Your task to perform on an android device: What's on my calendar tomorrow? Image 0: 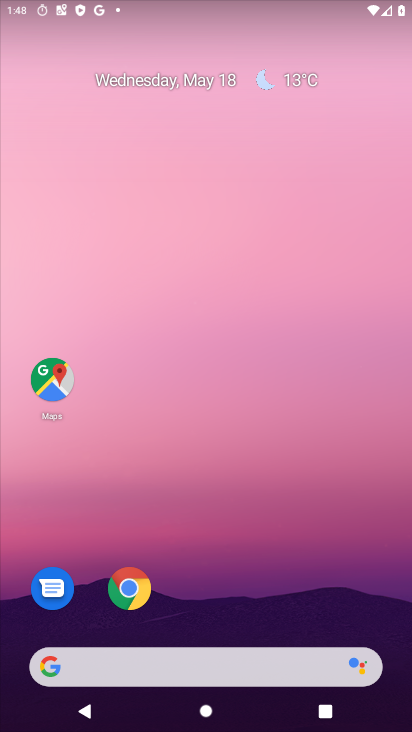
Step 0: drag from (202, 576) to (156, 151)
Your task to perform on an android device: What's on my calendar tomorrow? Image 1: 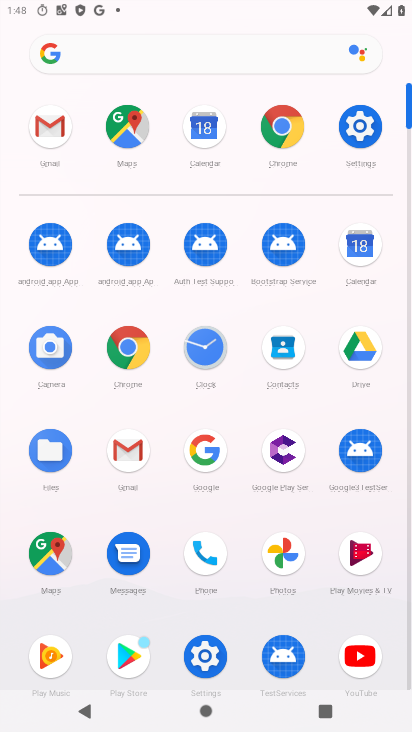
Step 1: click (378, 235)
Your task to perform on an android device: What's on my calendar tomorrow? Image 2: 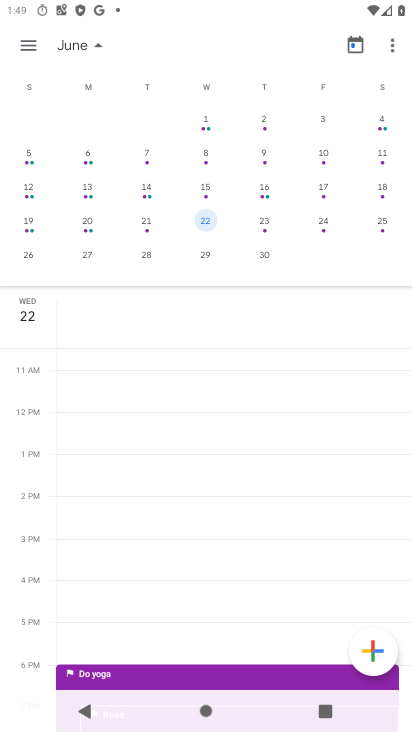
Step 2: drag from (27, 205) to (384, 146)
Your task to perform on an android device: What's on my calendar tomorrow? Image 3: 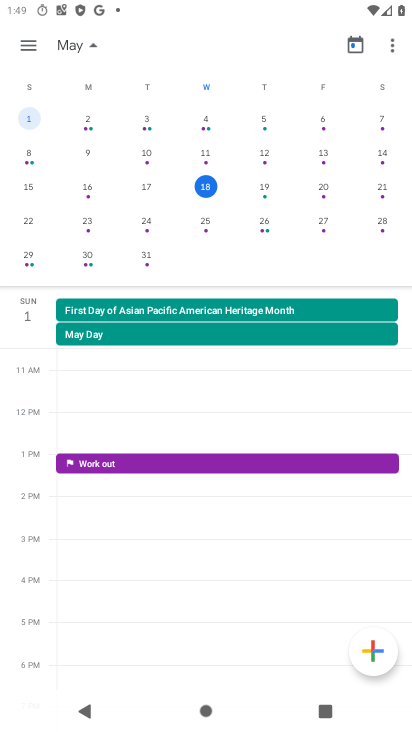
Step 3: click (263, 191)
Your task to perform on an android device: What's on my calendar tomorrow? Image 4: 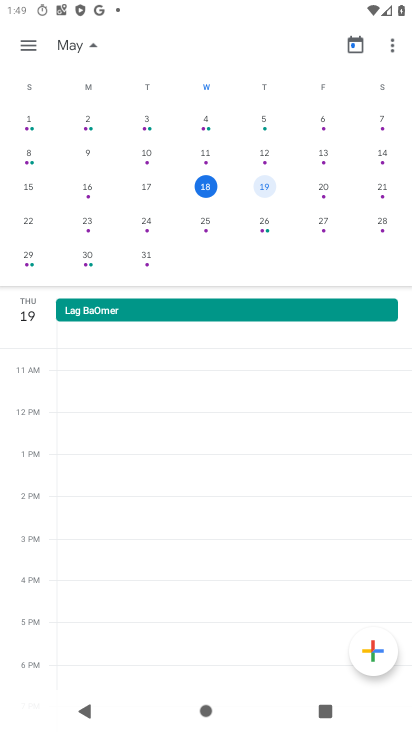
Step 4: task complete